Your task to perform on an android device: Go to settings Image 0: 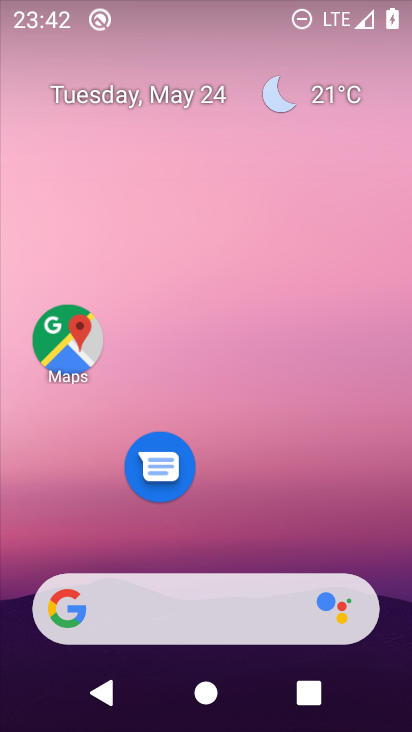
Step 0: drag from (196, 608) to (246, 73)
Your task to perform on an android device: Go to settings Image 1: 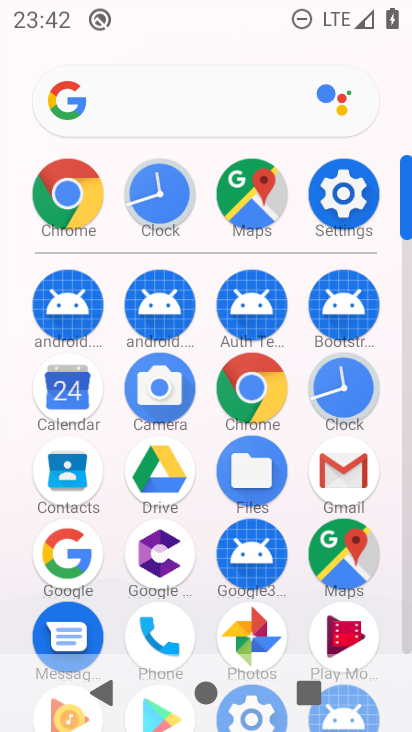
Step 1: click (332, 188)
Your task to perform on an android device: Go to settings Image 2: 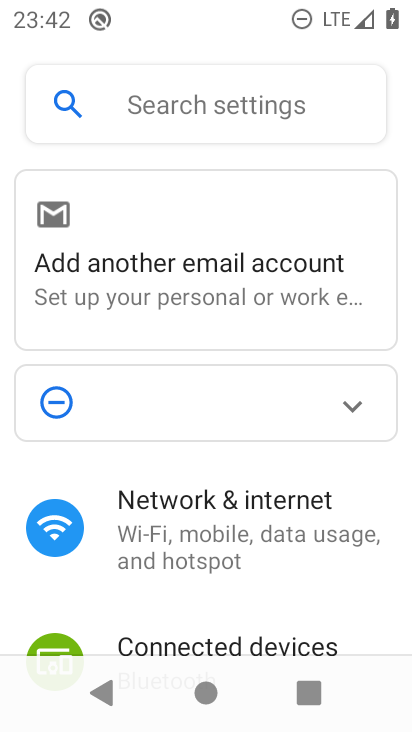
Step 2: task complete